Your task to perform on an android device: change notification settings in the gmail app Image 0: 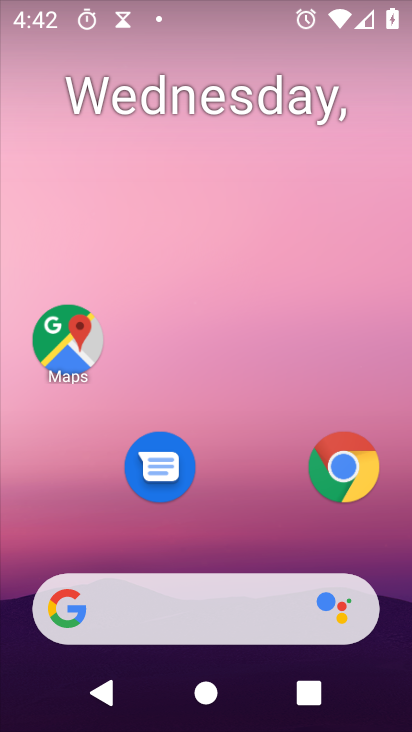
Step 0: drag from (278, 538) to (248, 88)
Your task to perform on an android device: change notification settings in the gmail app Image 1: 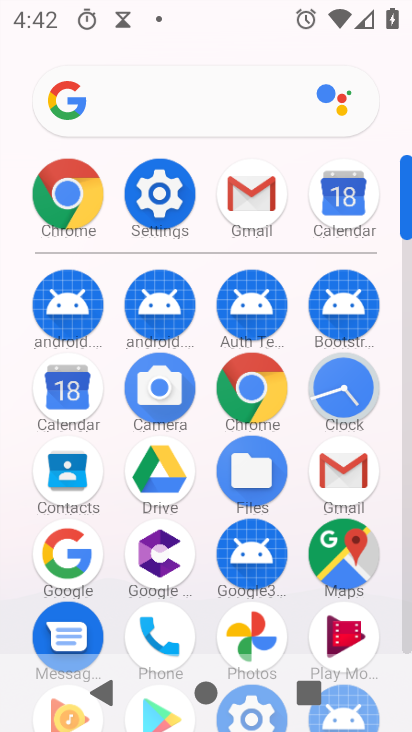
Step 1: click (266, 181)
Your task to perform on an android device: change notification settings in the gmail app Image 2: 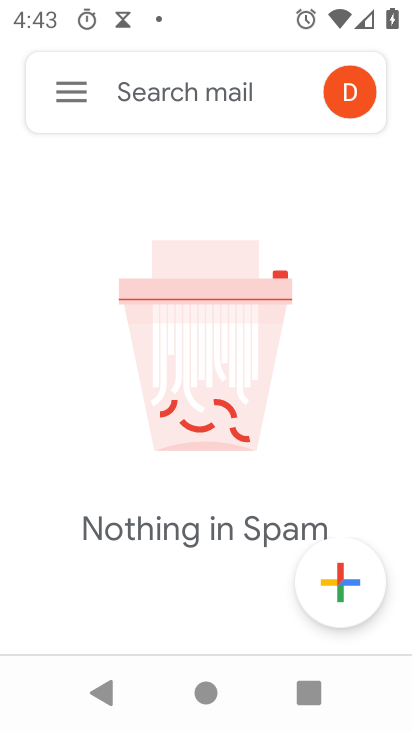
Step 2: click (101, 99)
Your task to perform on an android device: change notification settings in the gmail app Image 3: 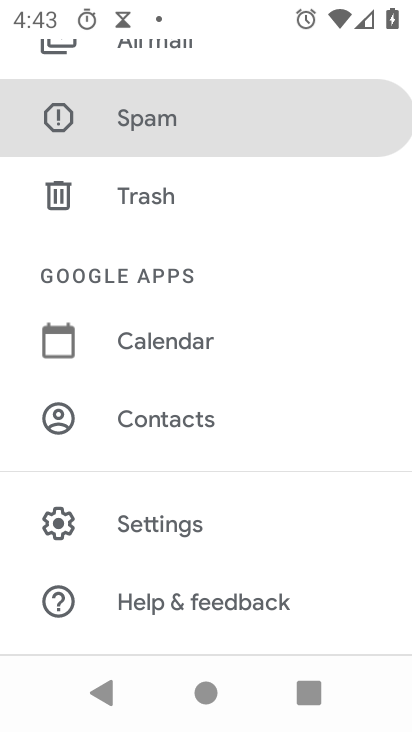
Step 3: click (201, 511)
Your task to perform on an android device: change notification settings in the gmail app Image 4: 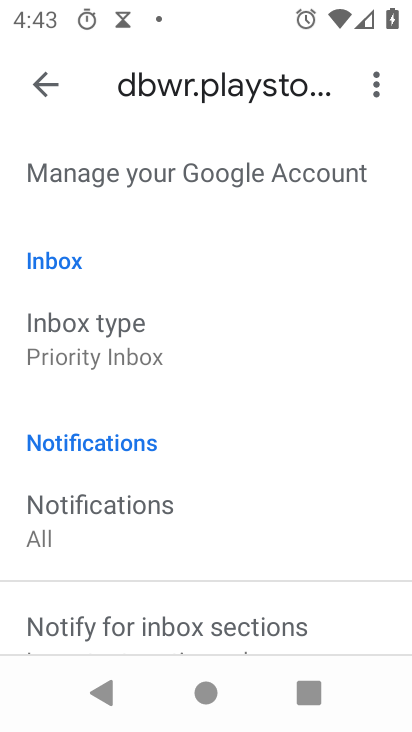
Step 4: drag from (270, 587) to (201, 177)
Your task to perform on an android device: change notification settings in the gmail app Image 5: 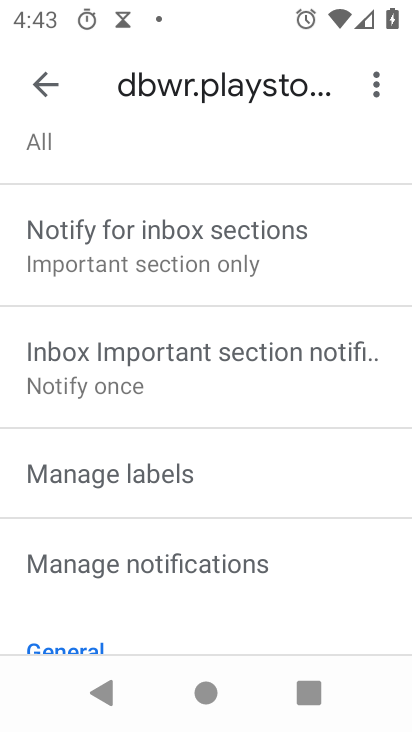
Step 5: click (212, 578)
Your task to perform on an android device: change notification settings in the gmail app Image 6: 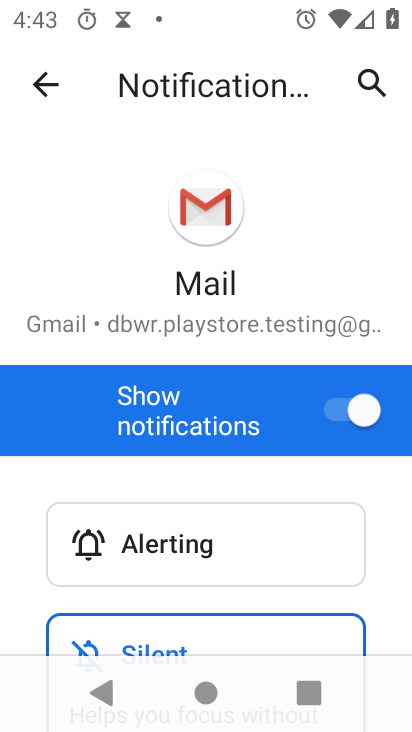
Step 6: drag from (308, 603) to (264, 166)
Your task to perform on an android device: change notification settings in the gmail app Image 7: 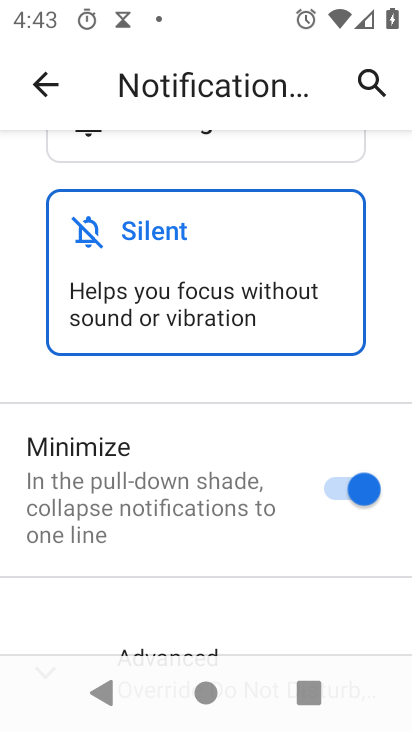
Step 7: click (282, 145)
Your task to perform on an android device: change notification settings in the gmail app Image 8: 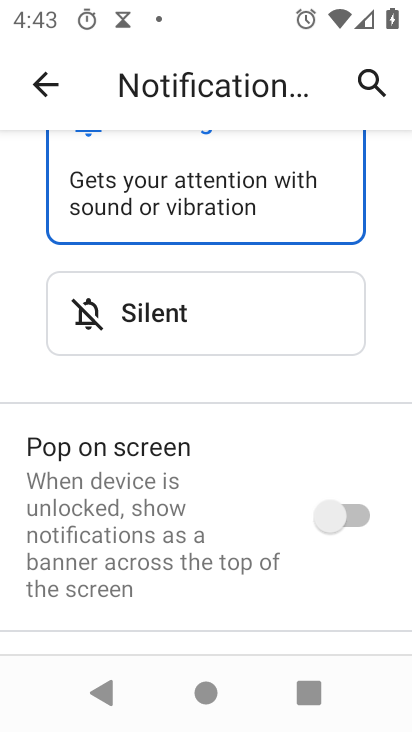
Step 8: click (357, 509)
Your task to perform on an android device: change notification settings in the gmail app Image 9: 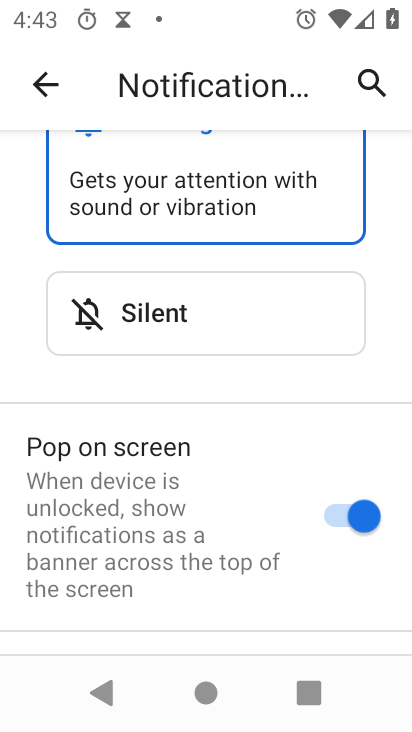
Step 9: task complete